Your task to perform on an android device: open chrome and create a bookmark for the current page Image 0: 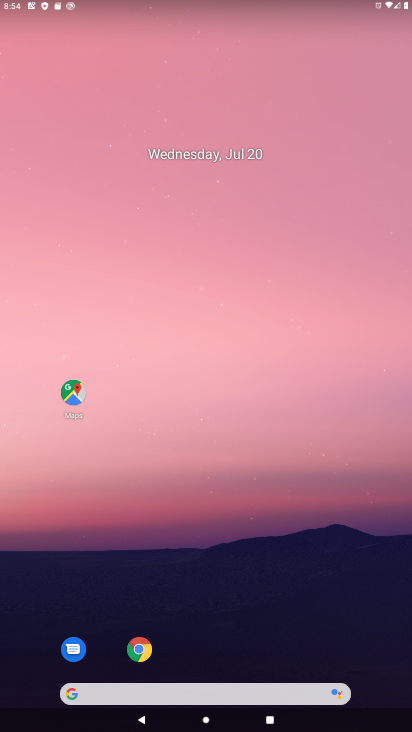
Step 0: click (137, 652)
Your task to perform on an android device: open chrome and create a bookmark for the current page Image 1: 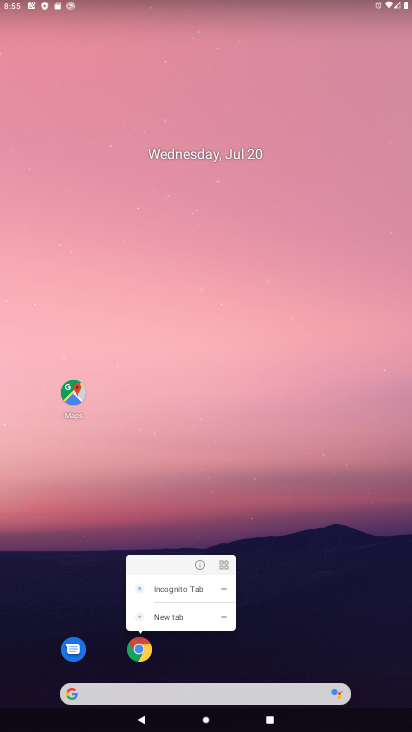
Step 1: click (144, 648)
Your task to perform on an android device: open chrome and create a bookmark for the current page Image 2: 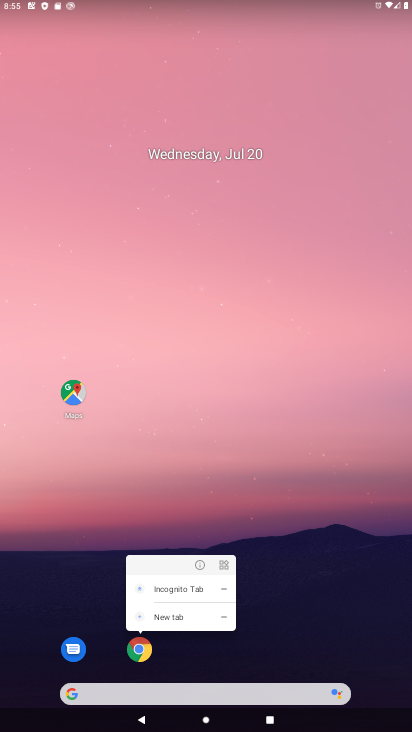
Step 2: click (144, 648)
Your task to perform on an android device: open chrome and create a bookmark for the current page Image 3: 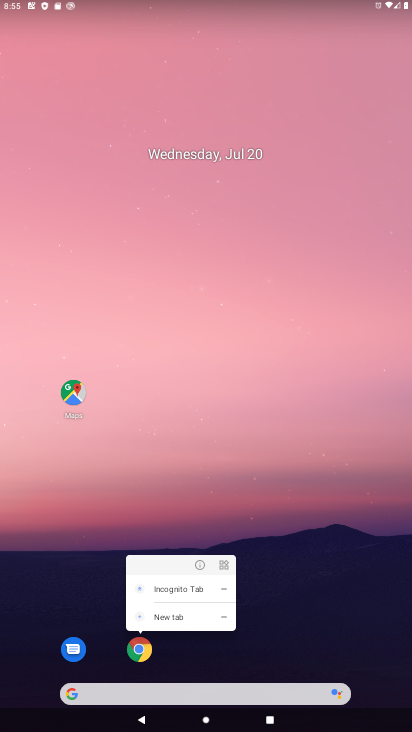
Step 3: click (139, 648)
Your task to perform on an android device: open chrome and create a bookmark for the current page Image 4: 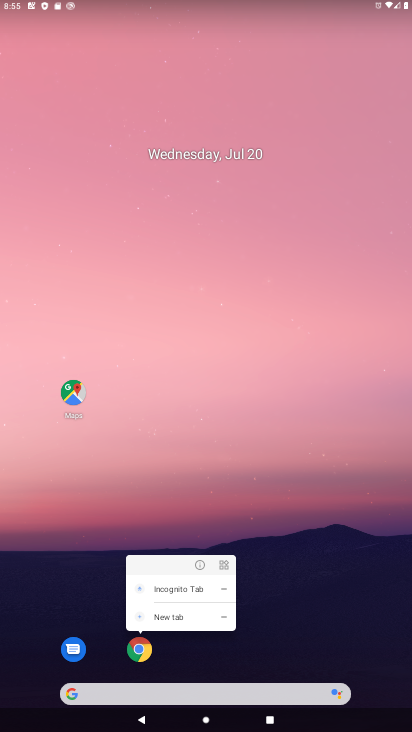
Step 4: click (133, 654)
Your task to perform on an android device: open chrome and create a bookmark for the current page Image 5: 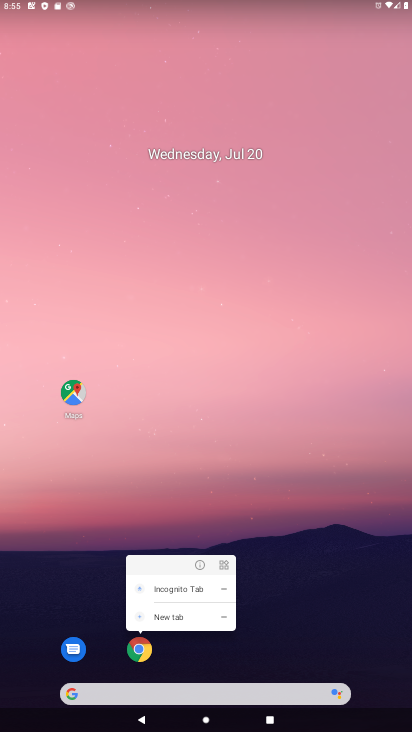
Step 5: click (133, 654)
Your task to perform on an android device: open chrome and create a bookmark for the current page Image 6: 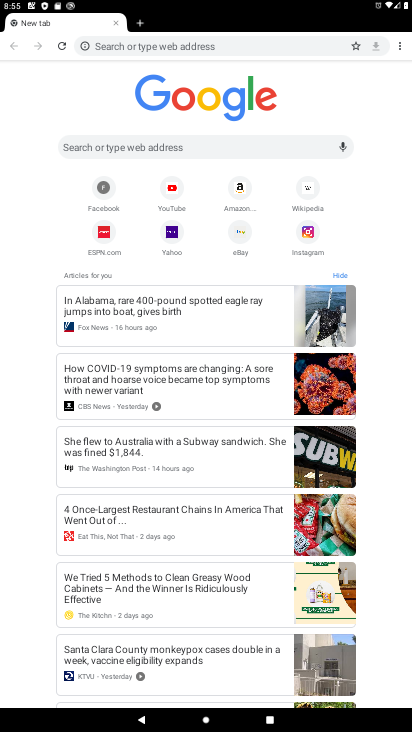
Step 6: click (402, 48)
Your task to perform on an android device: open chrome and create a bookmark for the current page Image 7: 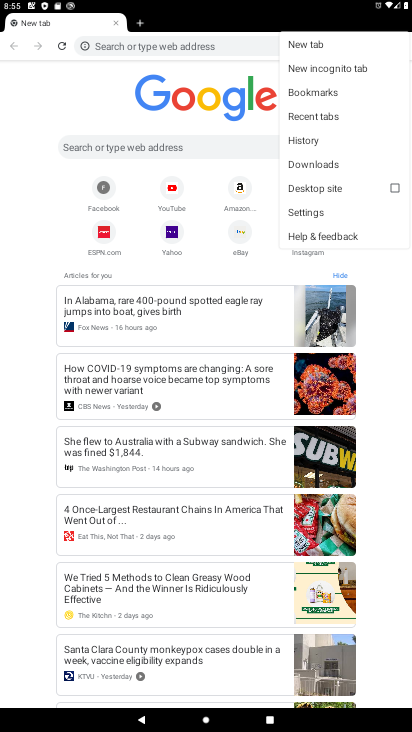
Step 7: click (42, 94)
Your task to perform on an android device: open chrome and create a bookmark for the current page Image 8: 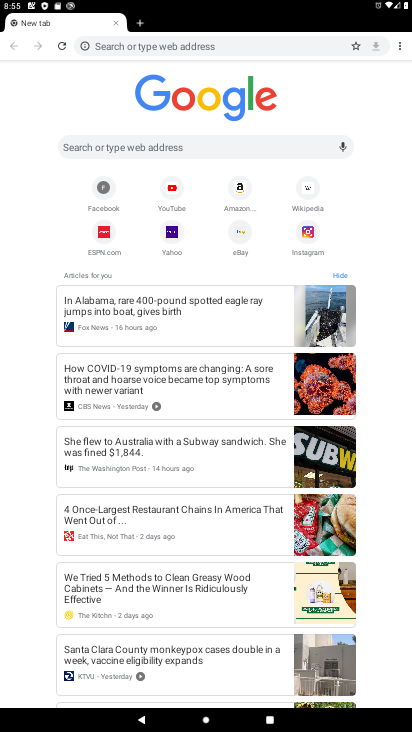
Step 8: click (355, 46)
Your task to perform on an android device: open chrome and create a bookmark for the current page Image 9: 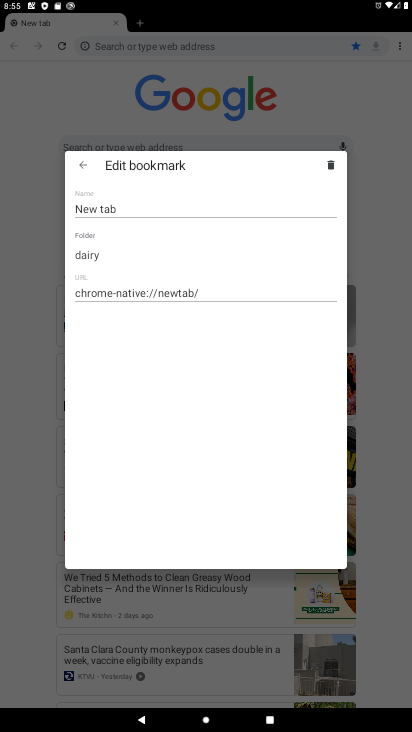
Step 9: click (123, 207)
Your task to perform on an android device: open chrome and create a bookmark for the current page Image 10: 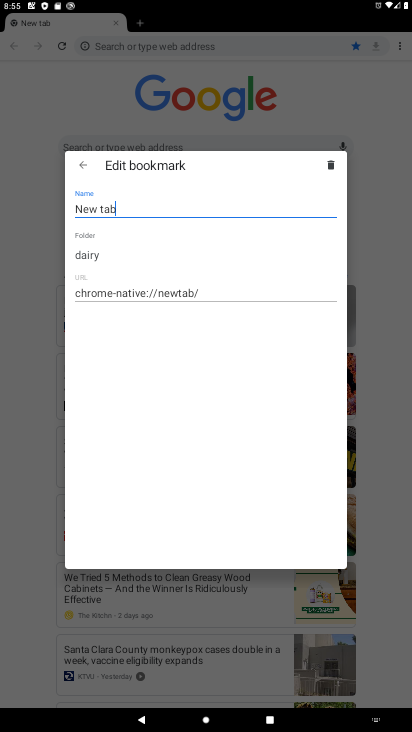
Step 10: click (374, 237)
Your task to perform on an android device: open chrome and create a bookmark for the current page Image 11: 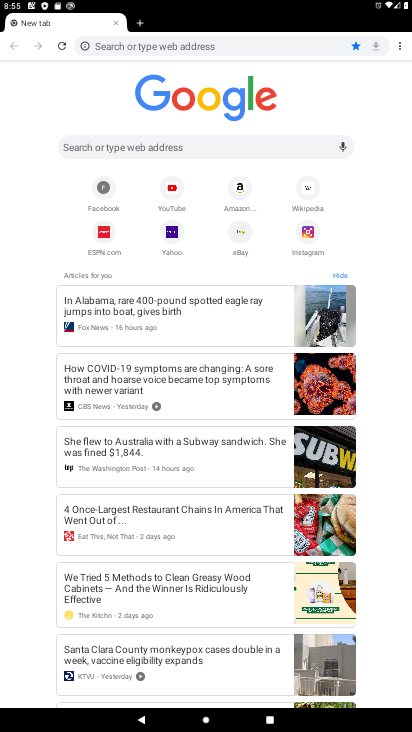
Step 11: task complete